Your task to perform on an android device: Open settings on Google Maps Image 0: 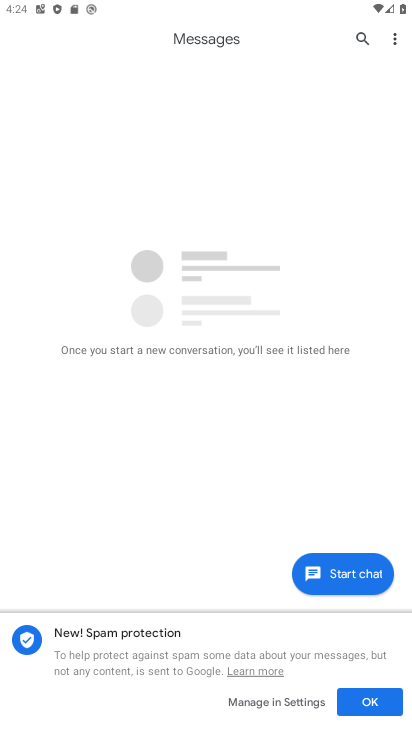
Step 0: press home button
Your task to perform on an android device: Open settings on Google Maps Image 1: 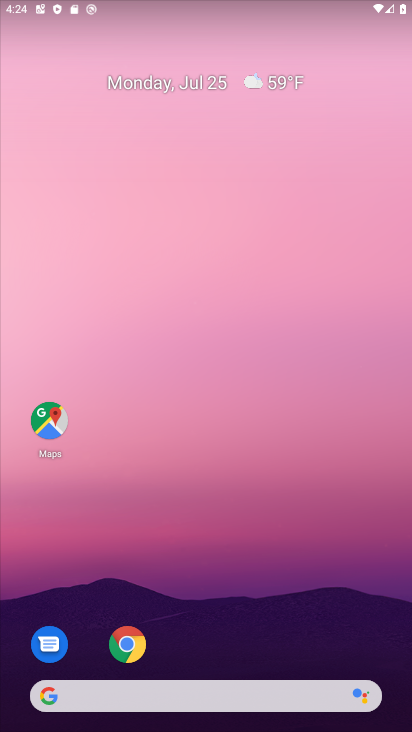
Step 1: drag from (178, 656) to (178, 42)
Your task to perform on an android device: Open settings on Google Maps Image 2: 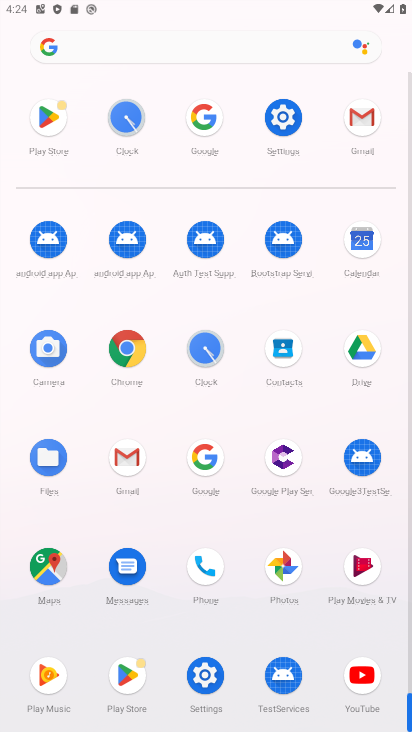
Step 2: click (57, 569)
Your task to perform on an android device: Open settings on Google Maps Image 3: 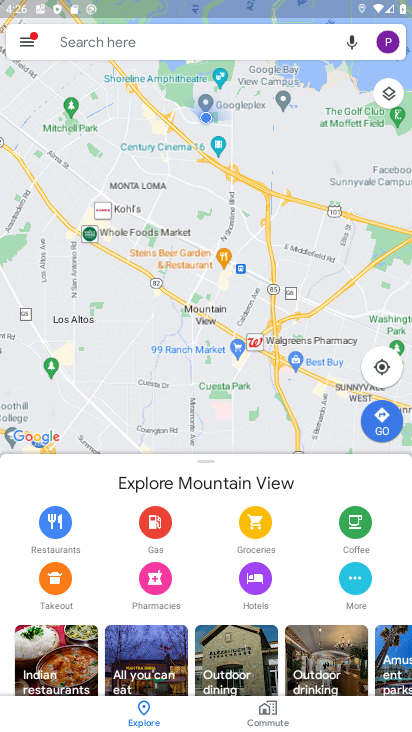
Step 3: click (18, 42)
Your task to perform on an android device: Open settings on Google Maps Image 4: 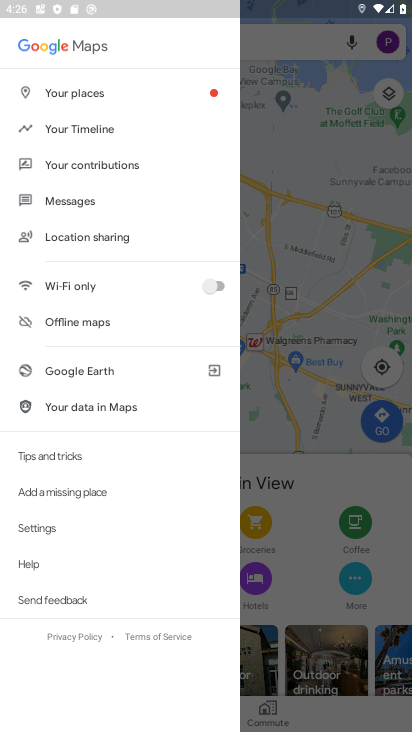
Step 4: click (53, 524)
Your task to perform on an android device: Open settings on Google Maps Image 5: 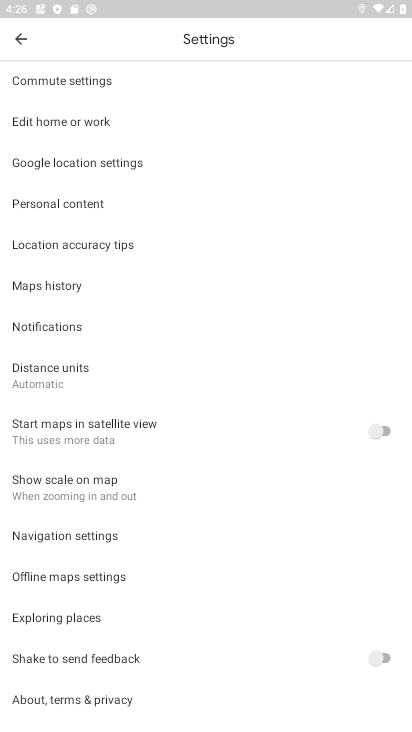
Step 5: task complete